Your task to perform on an android device: Is it going to rain today? Image 0: 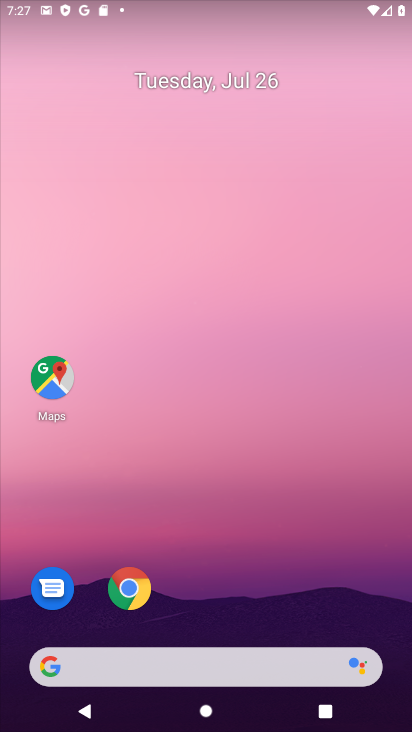
Step 0: drag from (198, 671) to (227, 183)
Your task to perform on an android device: Is it going to rain today? Image 1: 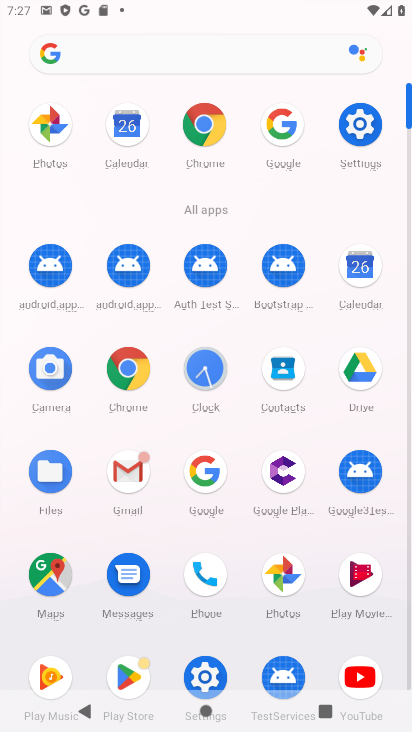
Step 1: click (214, 489)
Your task to perform on an android device: Is it going to rain today? Image 2: 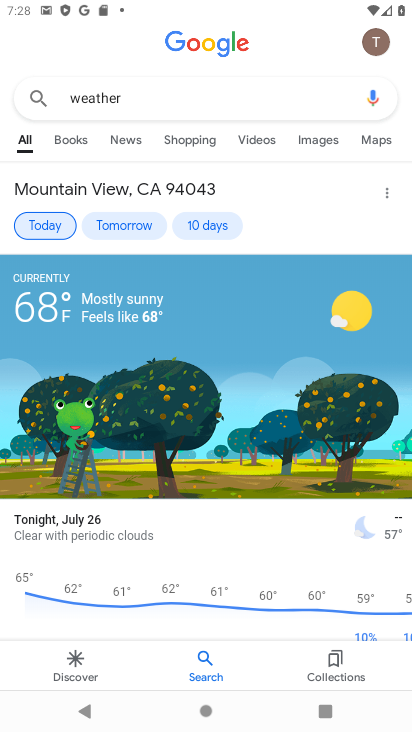
Step 2: task complete